Your task to perform on an android device: turn on javascript in the chrome app Image 0: 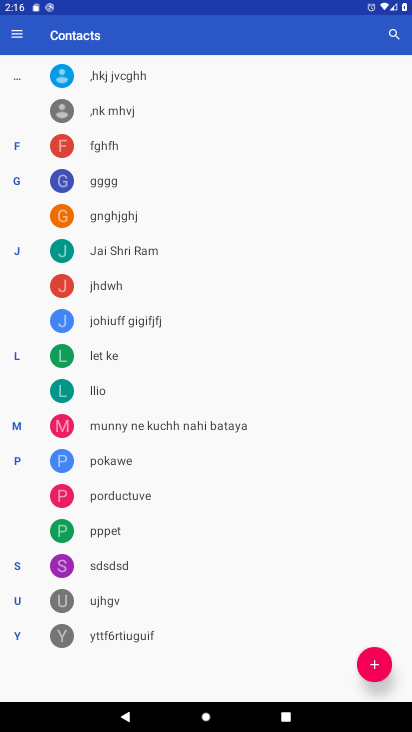
Step 0: press home button
Your task to perform on an android device: turn on javascript in the chrome app Image 1: 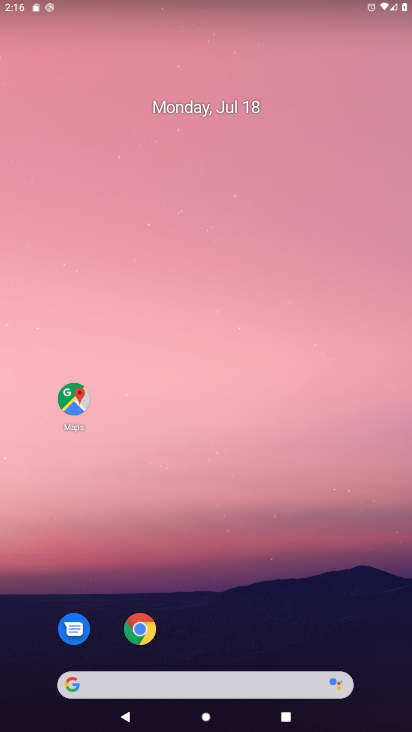
Step 1: click (138, 630)
Your task to perform on an android device: turn on javascript in the chrome app Image 2: 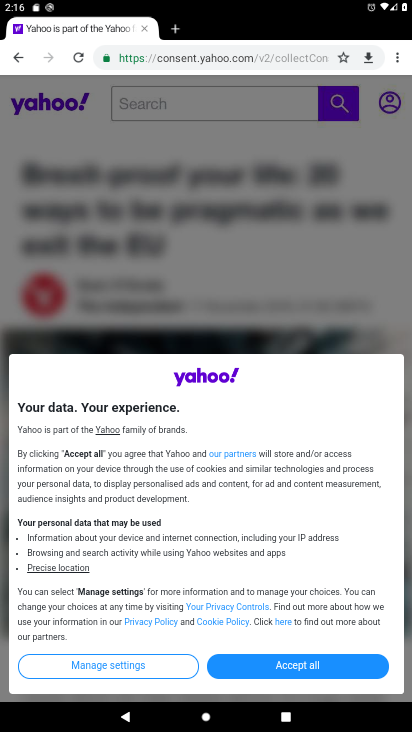
Step 2: click (397, 62)
Your task to perform on an android device: turn on javascript in the chrome app Image 3: 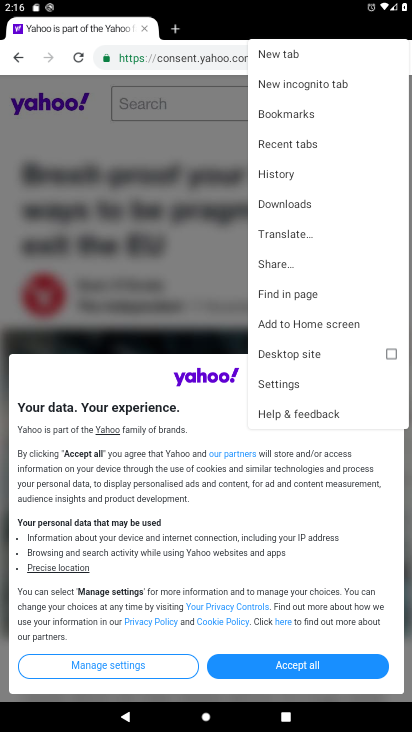
Step 3: click (271, 385)
Your task to perform on an android device: turn on javascript in the chrome app Image 4: 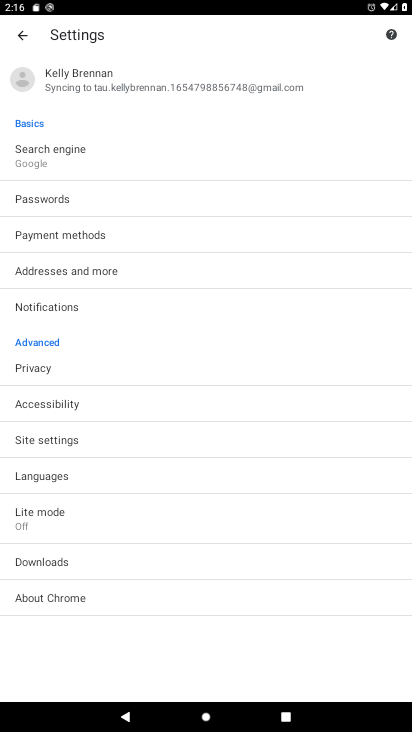
Step 4: click (62, 435)
Your task to perform on an android device: turn on javascript in the chrome app Image 5: 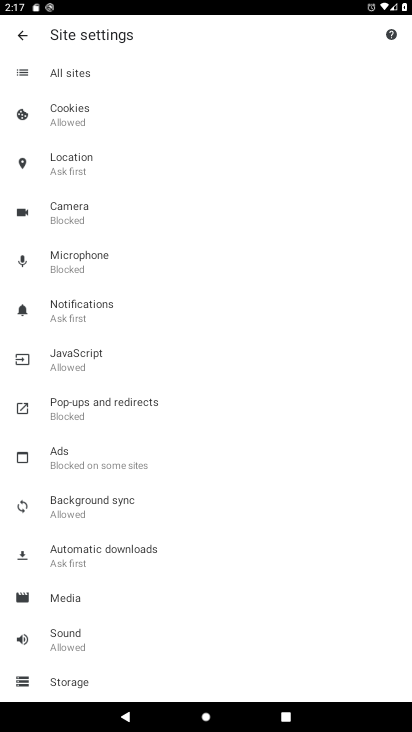
Step 5: click (71, 357)
Your task to perform on an android device: turn on javascript in the chrome app Image 6: 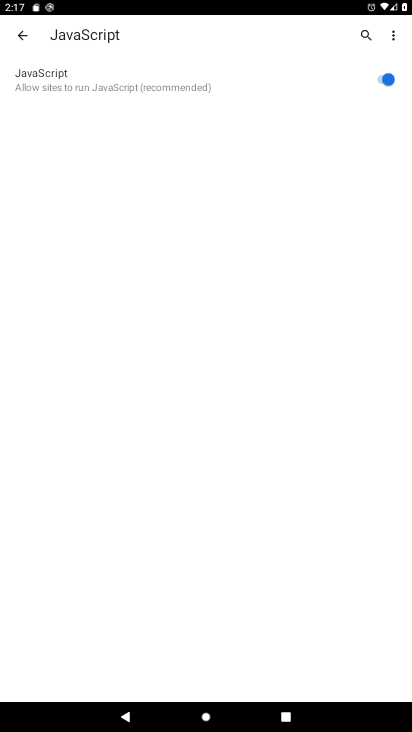
Step 6: task complete